Your task to perform on an android device: Turn on the flashlight Image 0: 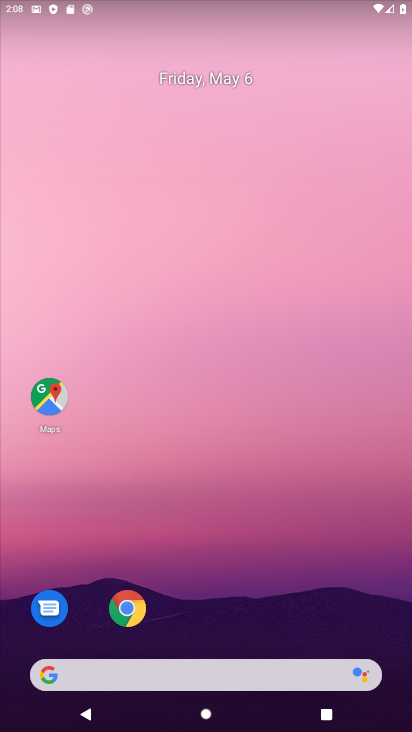
Step 0: task impossible